Your task to perform on an android device: Is it going to rain this weekend? Image 0: 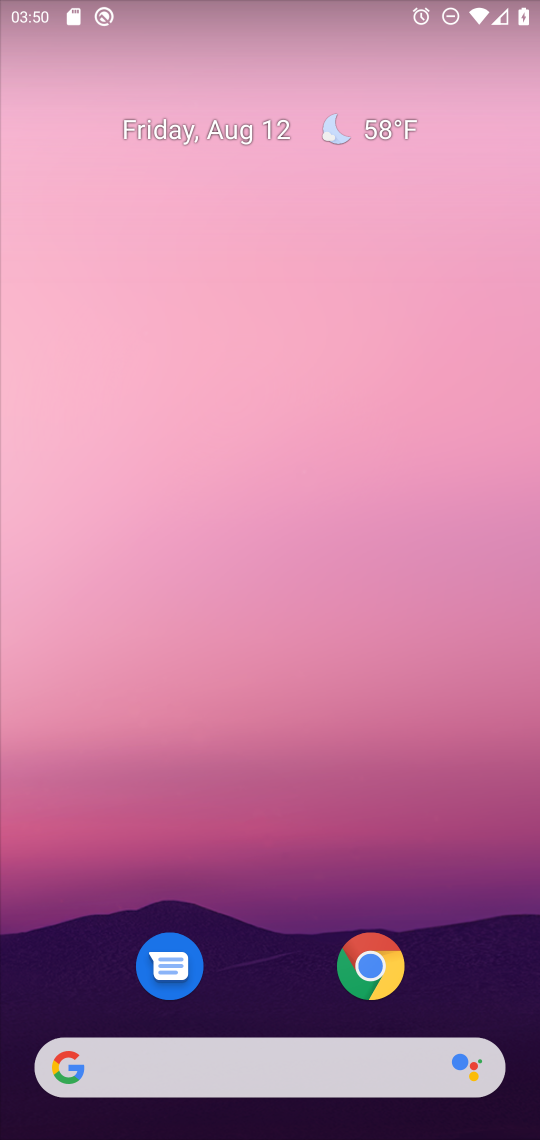
Step 0: drag from (272, 916) to (411, 62)
Your task to perform on an android device: Is it going to rain this weekend? Image 1: 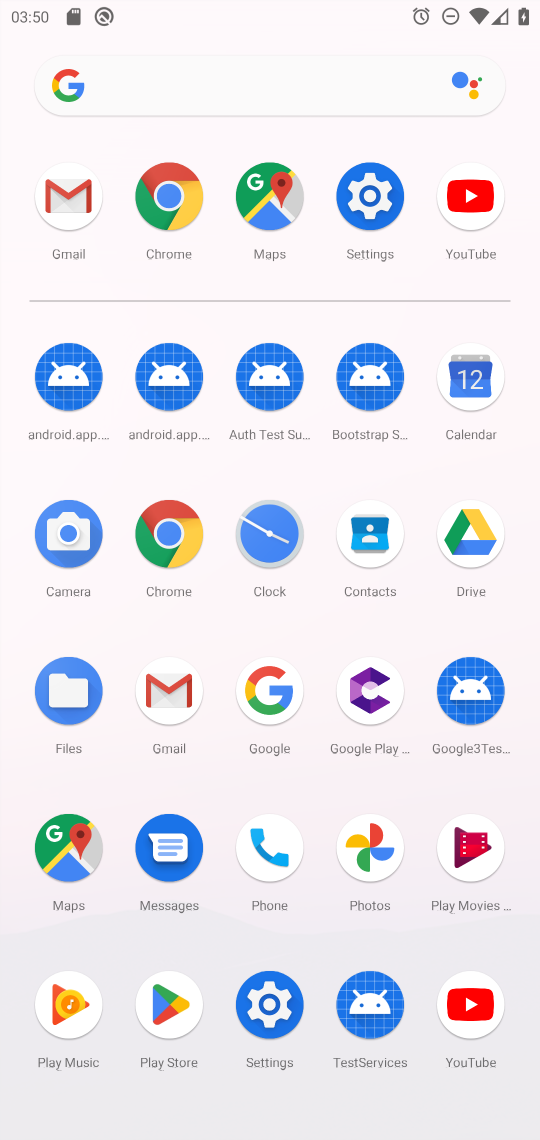
Step 1: press home button
Your task to perform on an android device: Is it going to rain this weekend? Image 2: 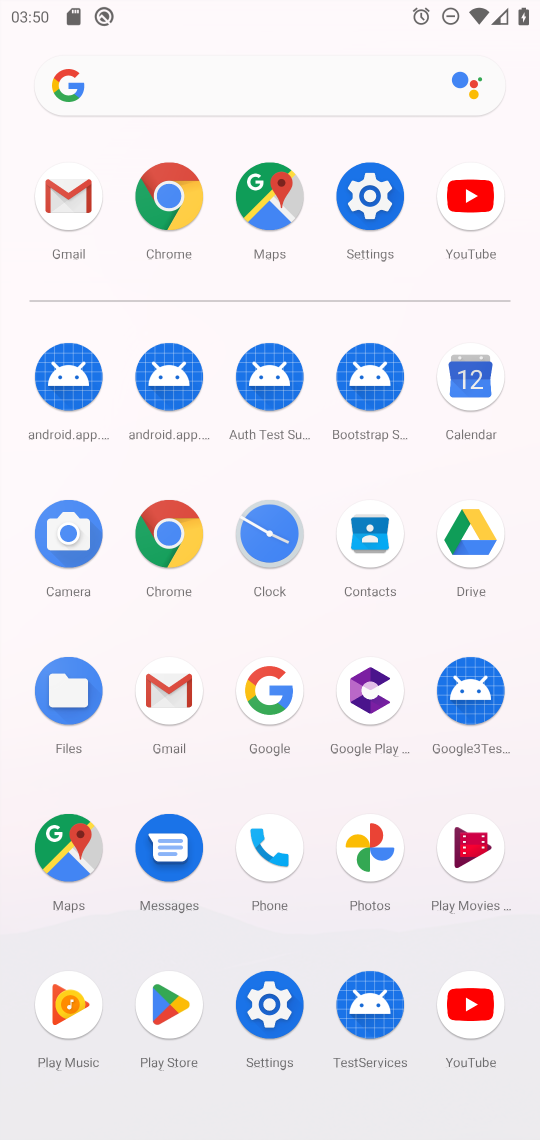
Step 2: press home button
Your task to perform on an android device: Is it going to rain this weekend? Image 3: 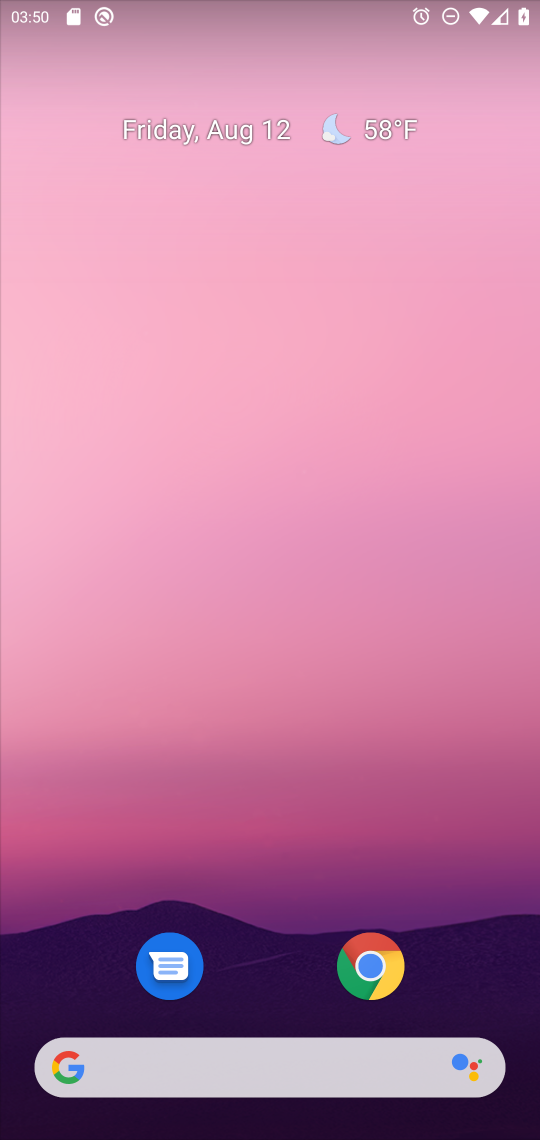
Step 3: click (392, 122)
Your task to perform on an android device: Is it going to rain this weekend? Image 4: 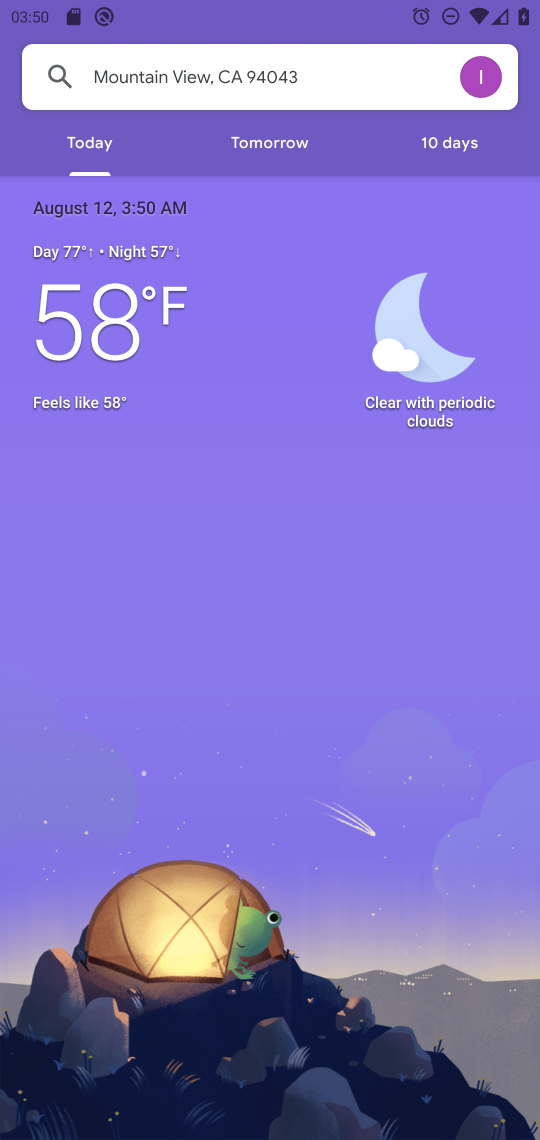
Step 4: click (466, 174)
Your task to perform on an android device: Is it going to rain this weekend? Image 5: 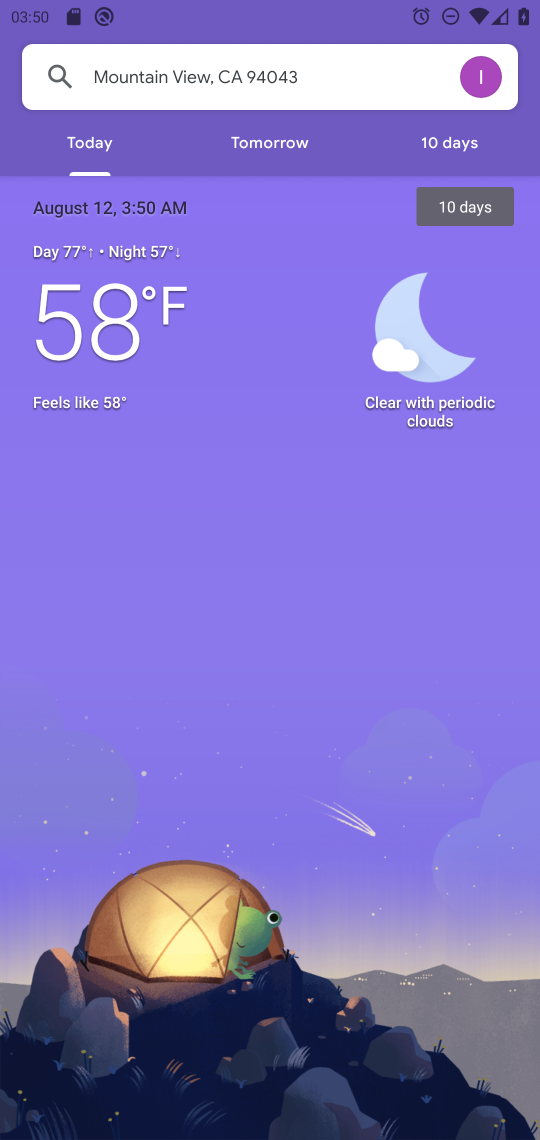
Step 5: click (447, 140)
Your task to perform on an android device: Is it going to rain this weekend? Image 6: 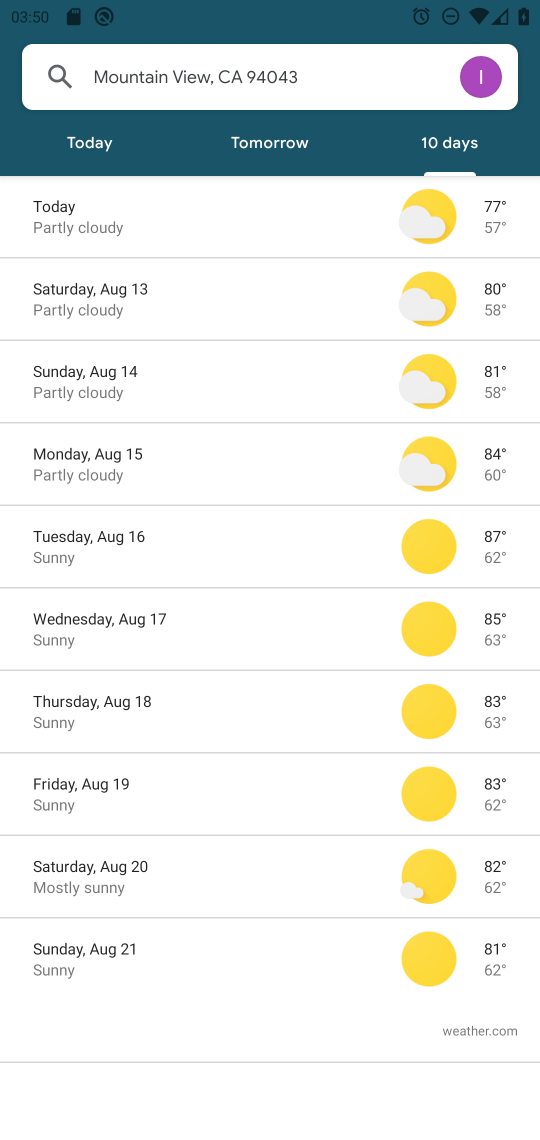
Step 6: click (447, 140)
Your task to perform on an android device: Is it going to rain this weekend? Image 7: 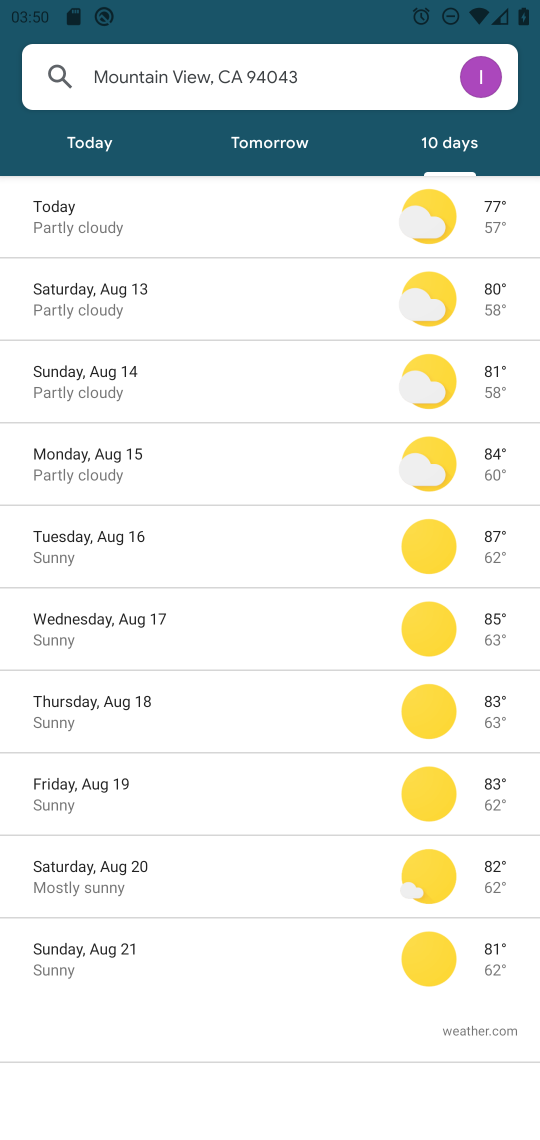
Step 7: click (76, 852)
Your task to perform on an android device: Is it going to rain this weekend? Image 8: 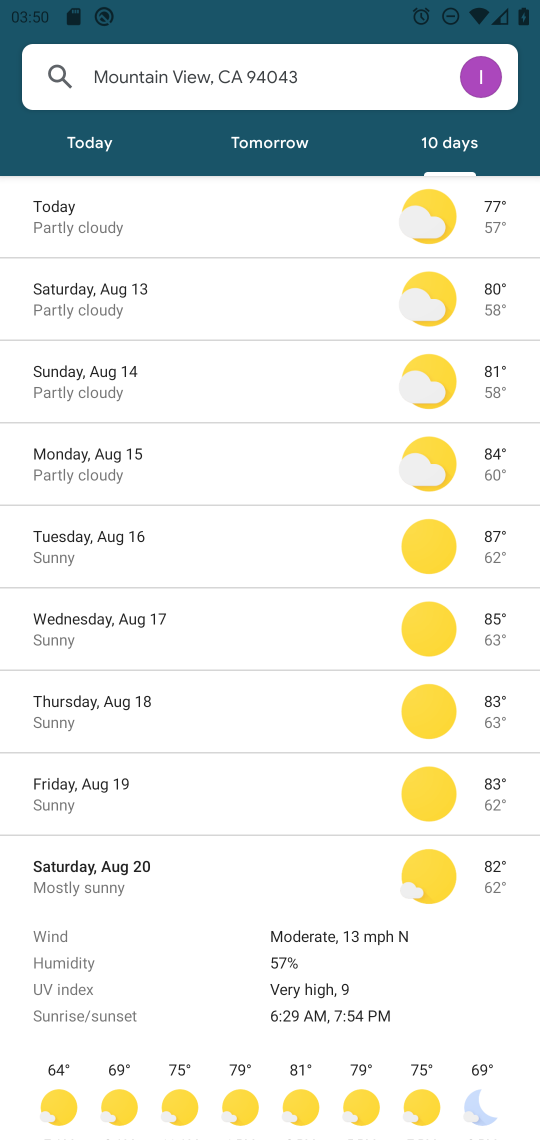
Step 8: task complete